Your task to perform on an android device: Open calendar and show me the fourth week of next month Image 0: 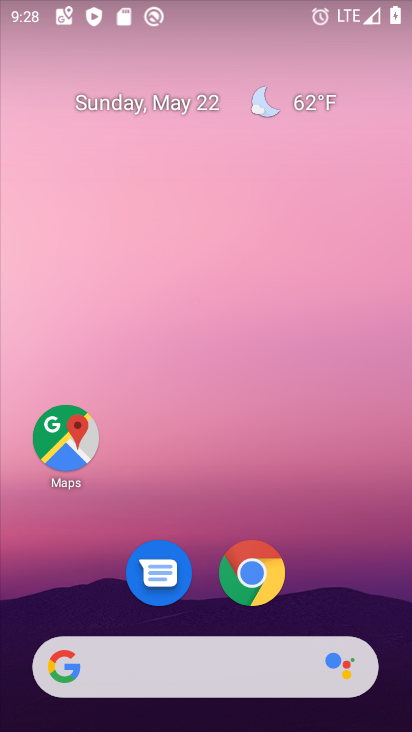
Step 0: drag from (113, 669) to (177, 121)
Your task to perform on an android device: Open calendar and show me the fourth week of next month Image 1: 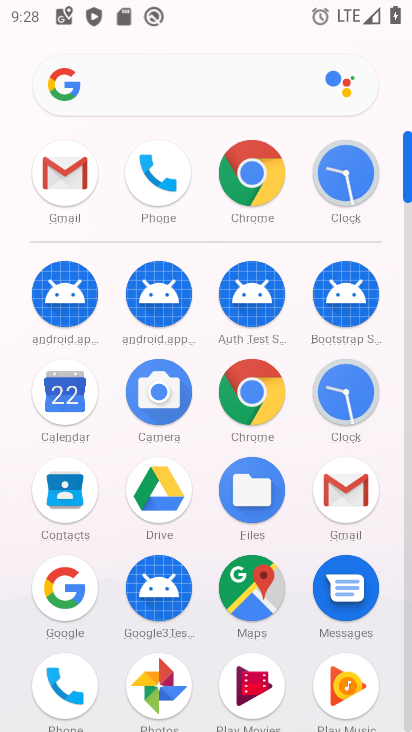
Step 1: click (72, 410)
Your task to perform on an android device: Open calendar and show me the fourth week of next month Image 2: 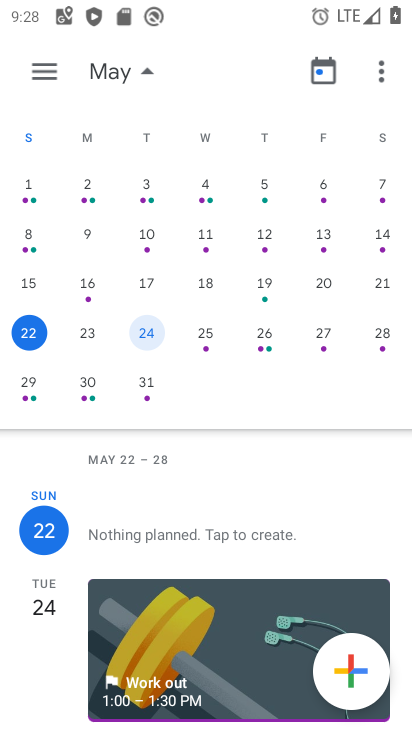
Step 2: drag from (297, 300) to (33, 316)
Your task to perform on an android device: Open calendar and show me the fourth week of next month Image 3: 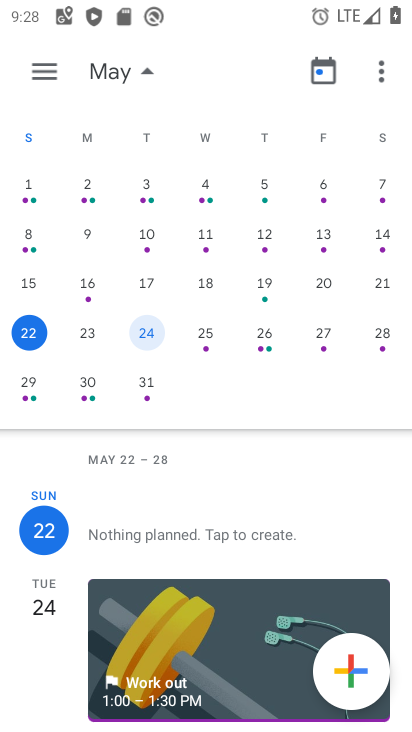
Step 3: drag from (361, 229) to (37, 329)
Your task to perform on an android device: Open calendar and show me the fourth week of next month Image 4: 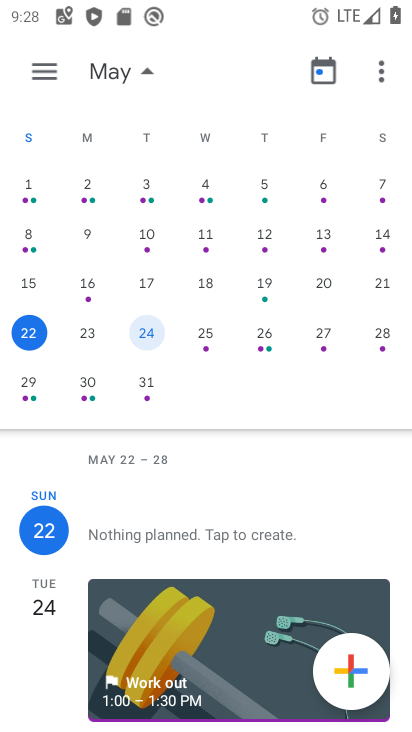
Step 4: drag from (374, 252) to (80, 311)
Your task to perform on an android device: Open calendar and show me the fourth week of next month Image 5: 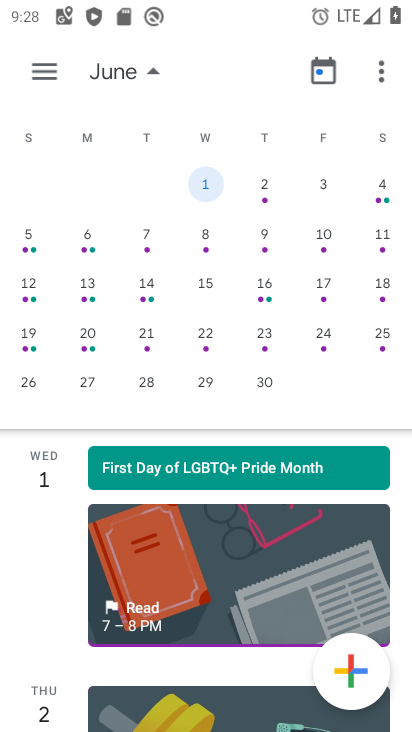
Step 5: click (260, 332)
Your task to perform on an android device: Open calendar and show me the fourth week of next month Image 6: 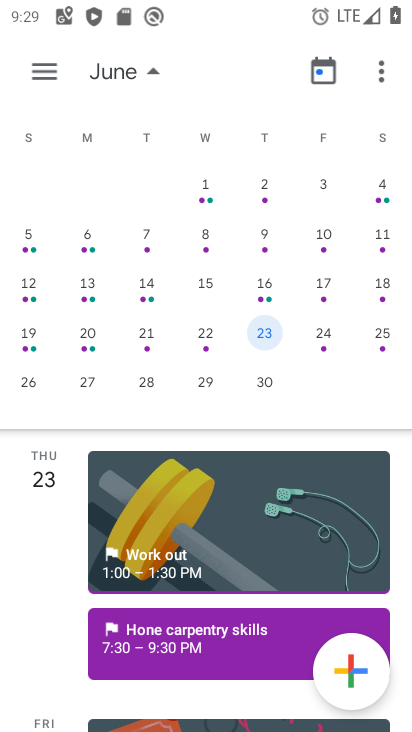
Step 6: task complete